Your task to perform on an android device: Clear the cart on amazon. Image 0: 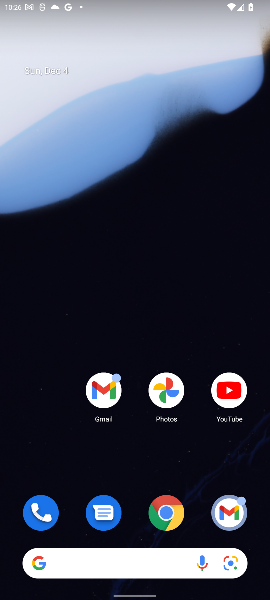
Step 0: click (166, 521)
Your task to perform on an android device: Clear the cart on amazon. Image 1: 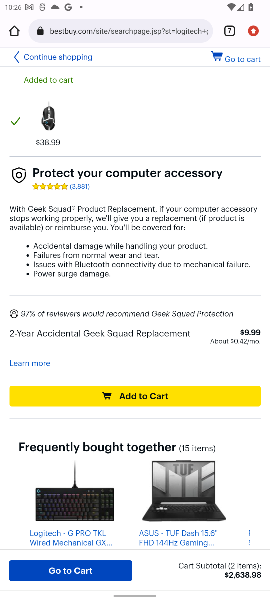
Step 1: click (232, 31)
Your task to perform on an android device: Clear the cart on amazon. Image 2: 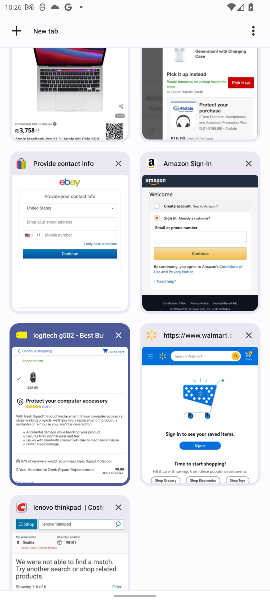
Step 2: click (177, 222)
Your task to perform on an android device: Clear the cart on amazon. Image 3: 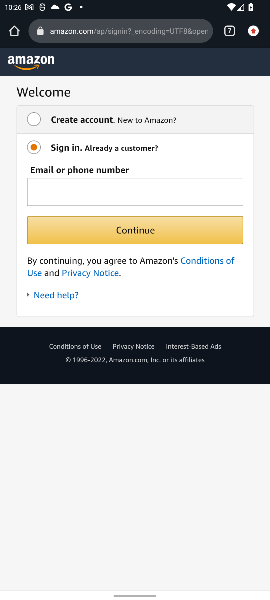
Step 3: press back button
Your task to perform on an android device: Clear the cart on amazon. Image 4: 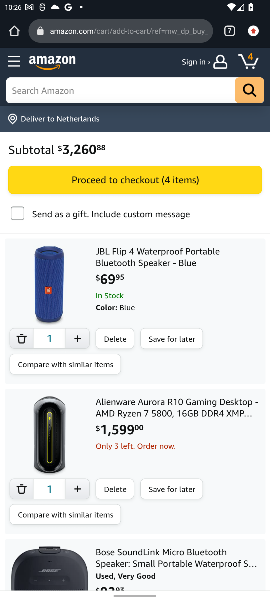
Step 4: click (115, 337)
Your task to perform on an android device: Clear the cart on amazon. Image 5: 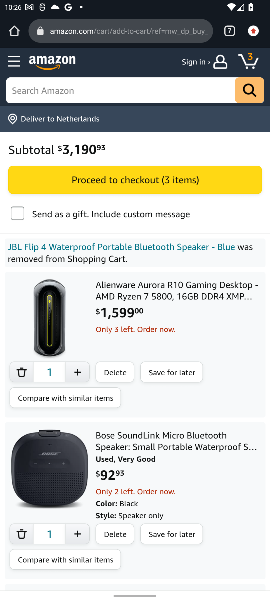
Step 5: click (114, 373)
Your task to perform on an android device: Clear the cart on amazon. Image 6: 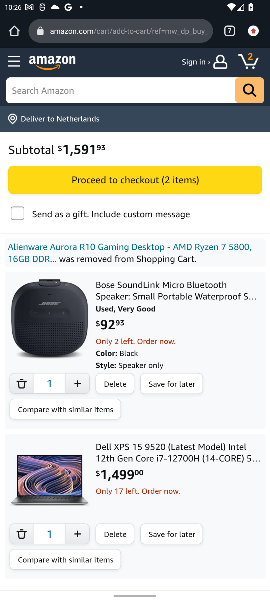
Step 6: click (117, 381)
Your task to perform on an android device: Clear the cart on amazon. Image 7: 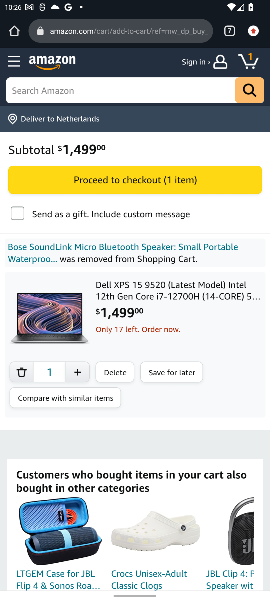
Step 7: click (114, 371)
Your task to perform on an android device: Clear the cart on amazon. Image 8: 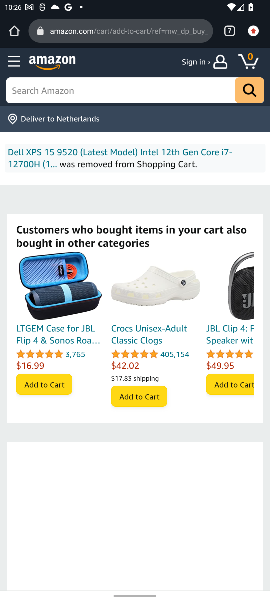
Step 8: task complete